Your task to perform on an android device: see creations saved in the google photos Image 0: 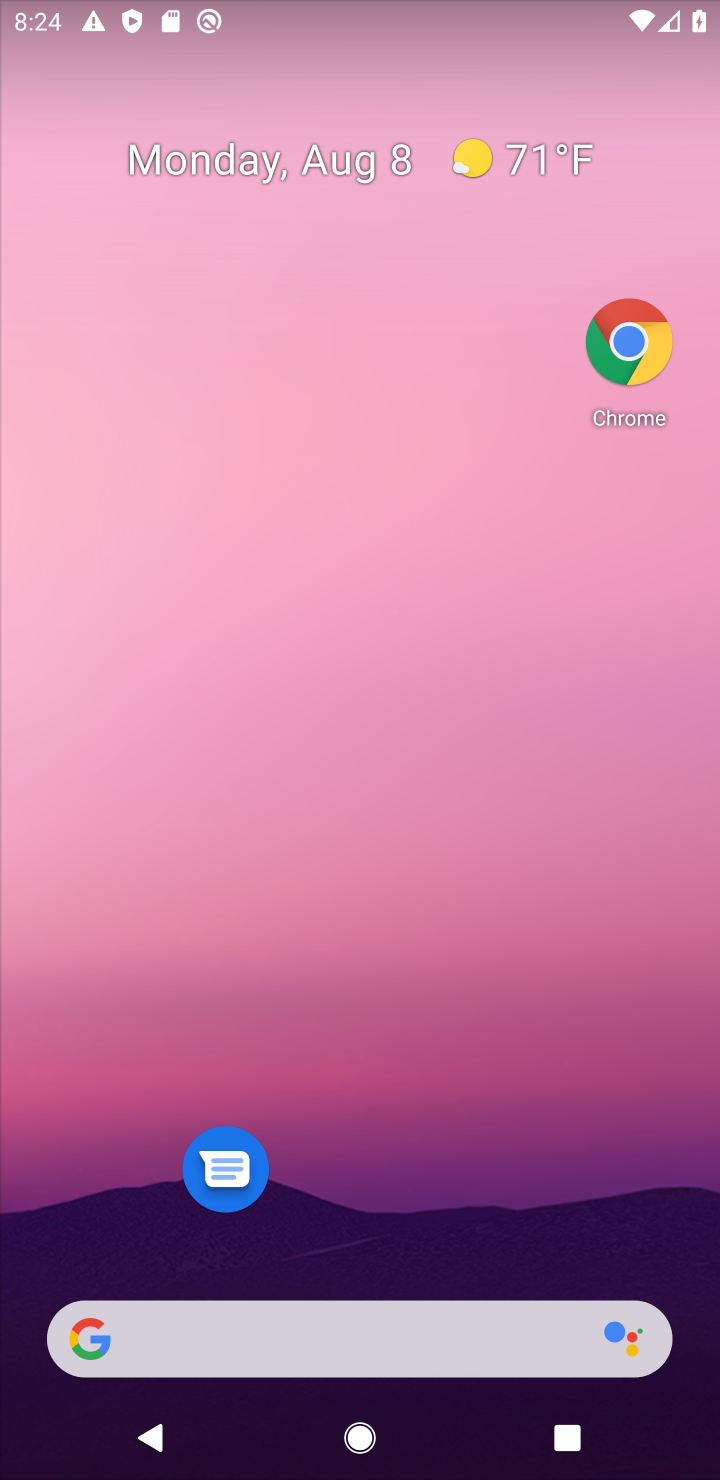
Step 0: drag from (370, 915) to (406, 31)
Your task to perform on an android device: see creations saved in the google photos Image 1: 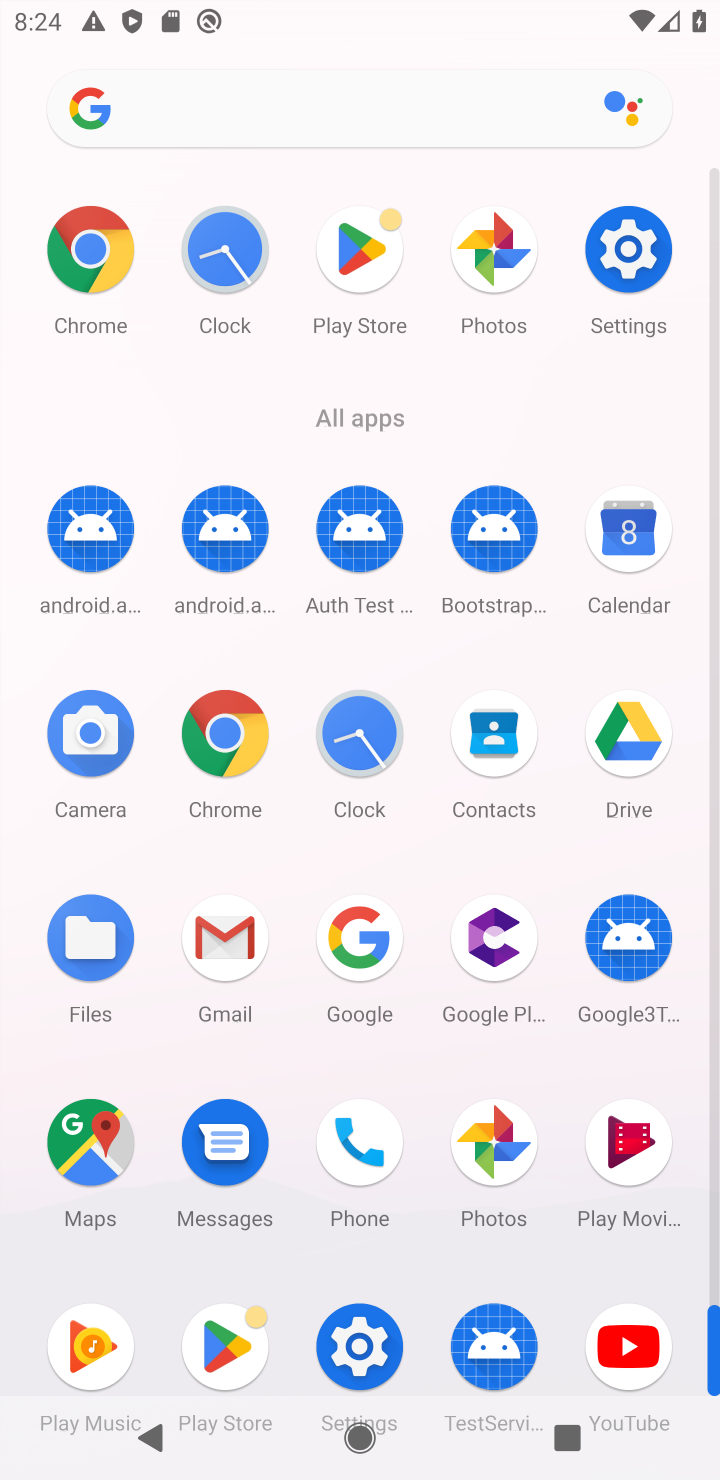
Step 1: click (501, 269)
Your task to perform on an android device: see creations saved in the google photos Image 2: 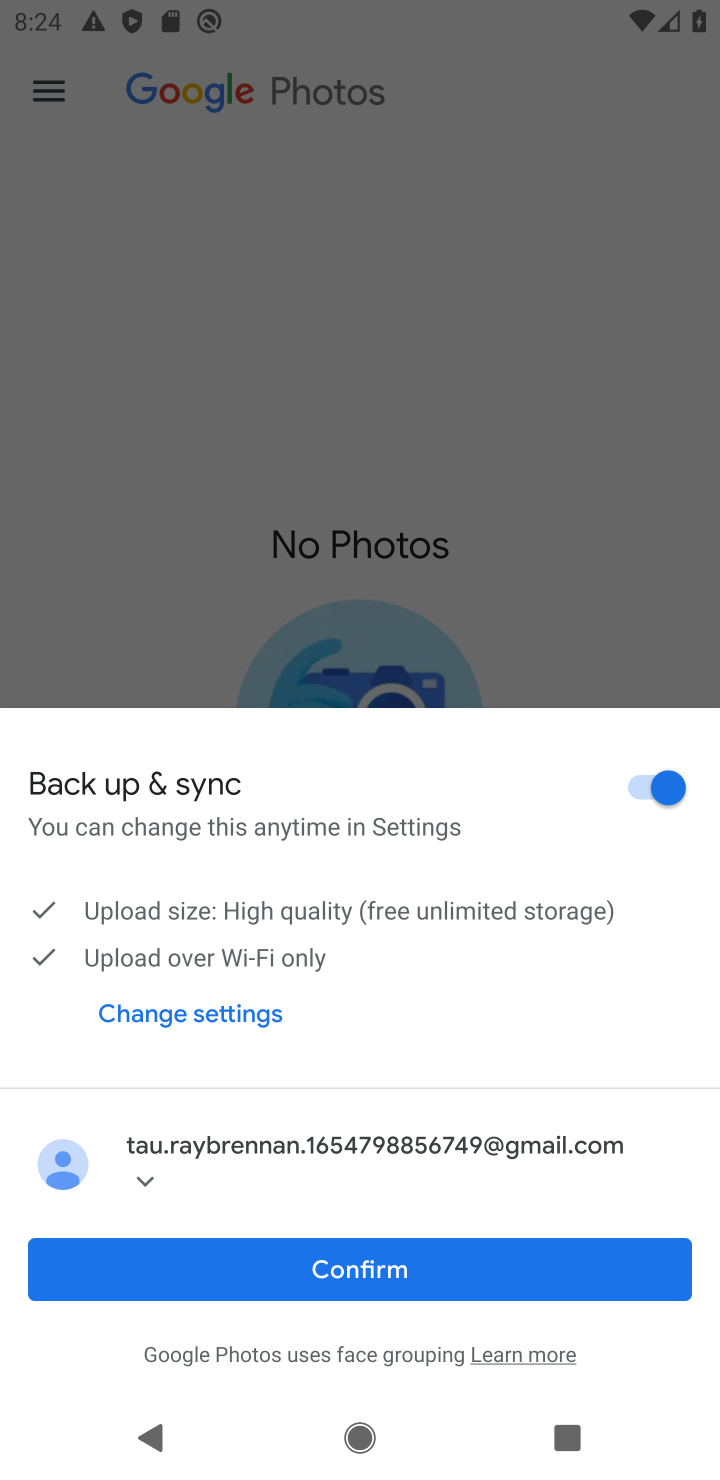
Step 2: click (359, 1244)
Your task to perform on an android device: see creations saved in the google photos Image 3: 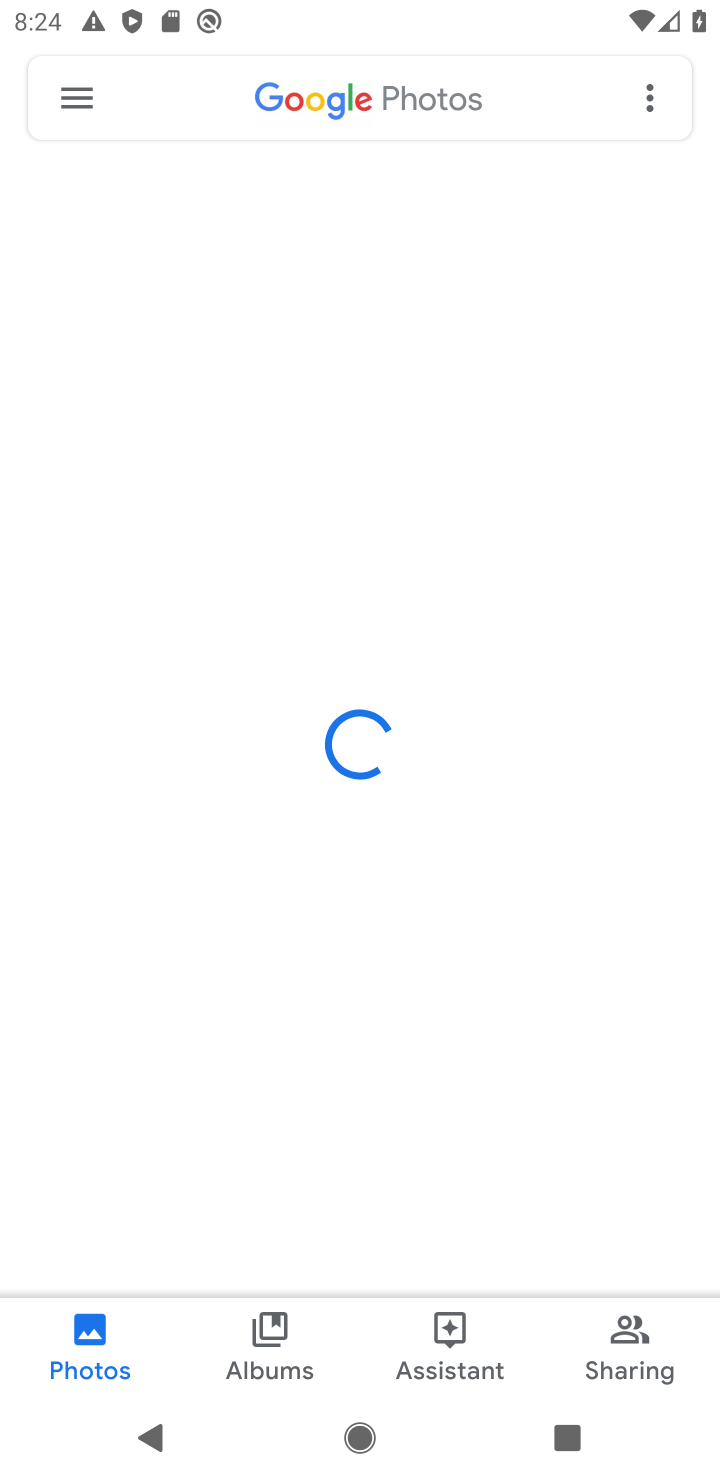
Step 3: click (91, 1324)
Your task to perform on an android device: see creations saved in the google photos Image 4: 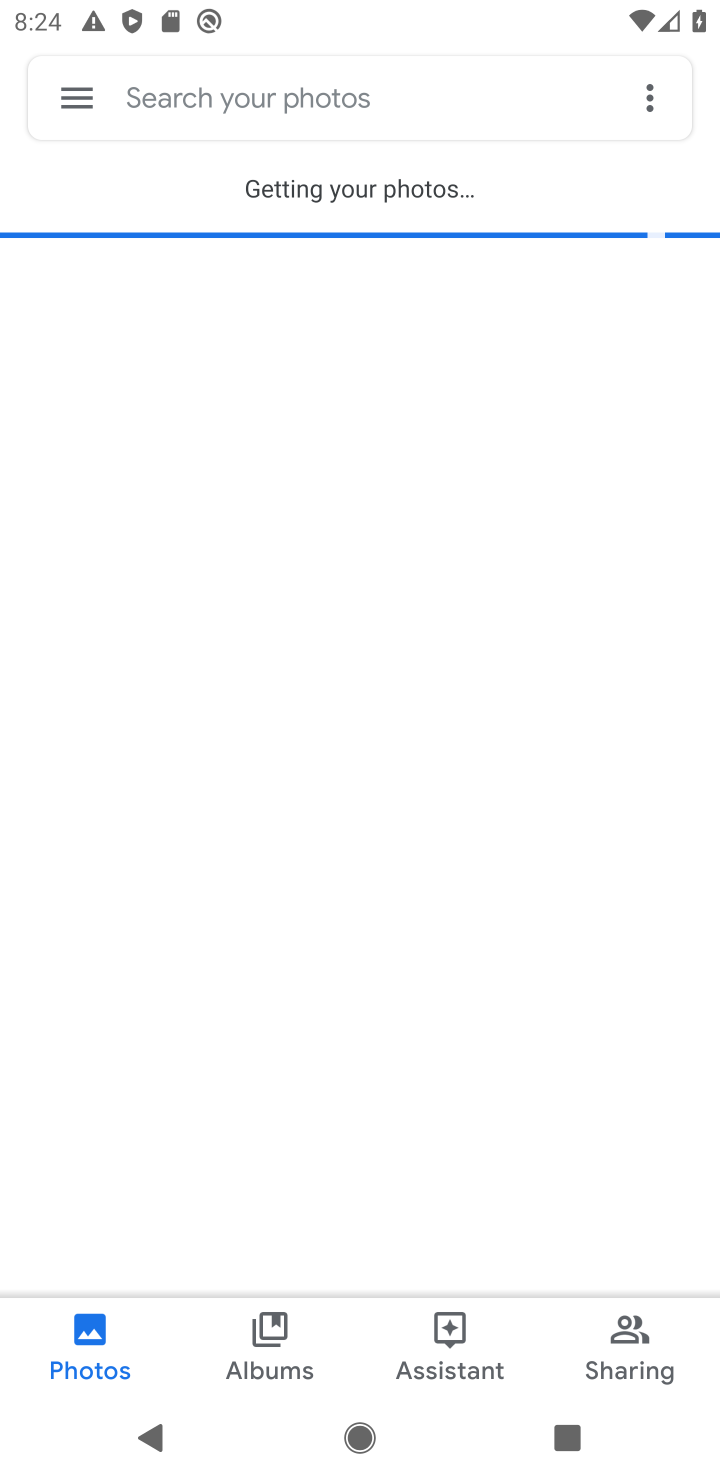
Step 4: click (68, 112)
Your task to perform on an android device: see creations saved in the google photos Image 5: 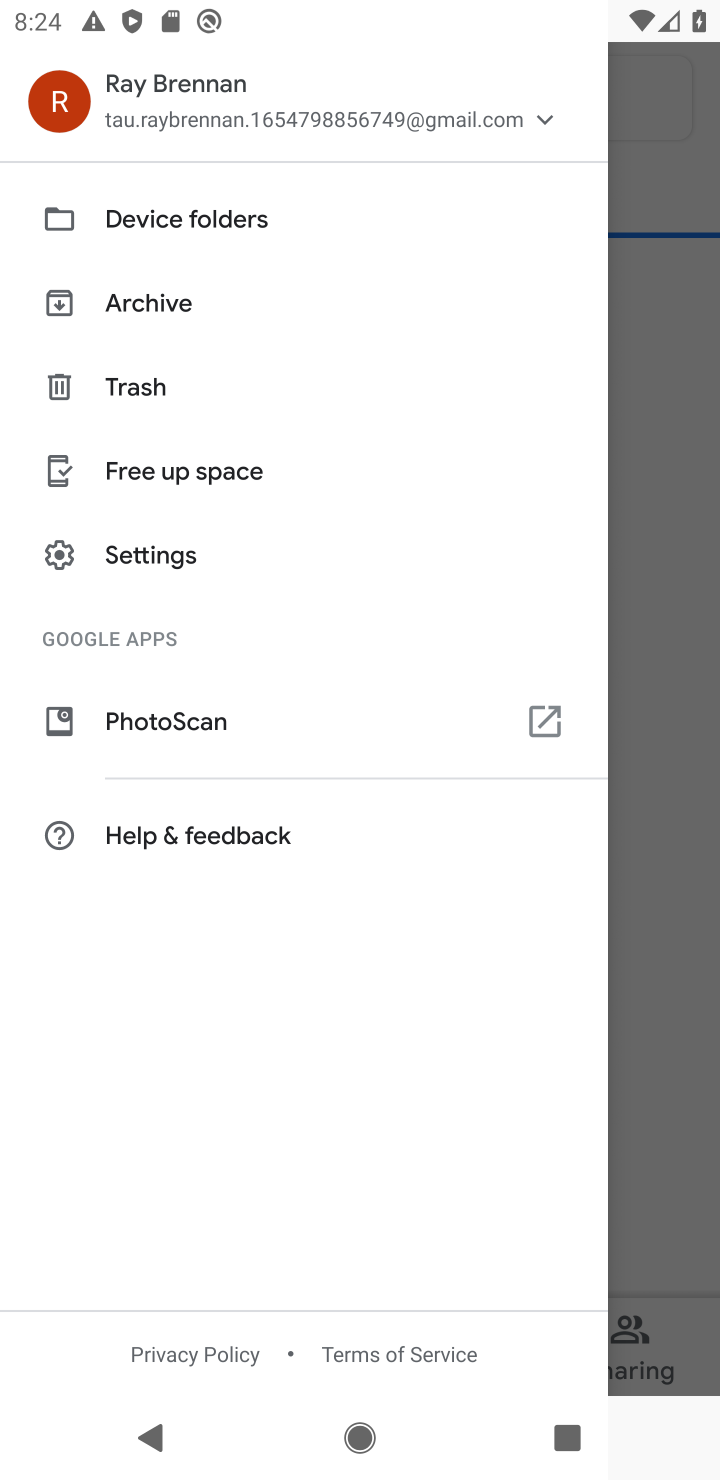
Step 5: click (166, 297)
Your task to perform on an android device: see creations saved in the google photos Image 6: 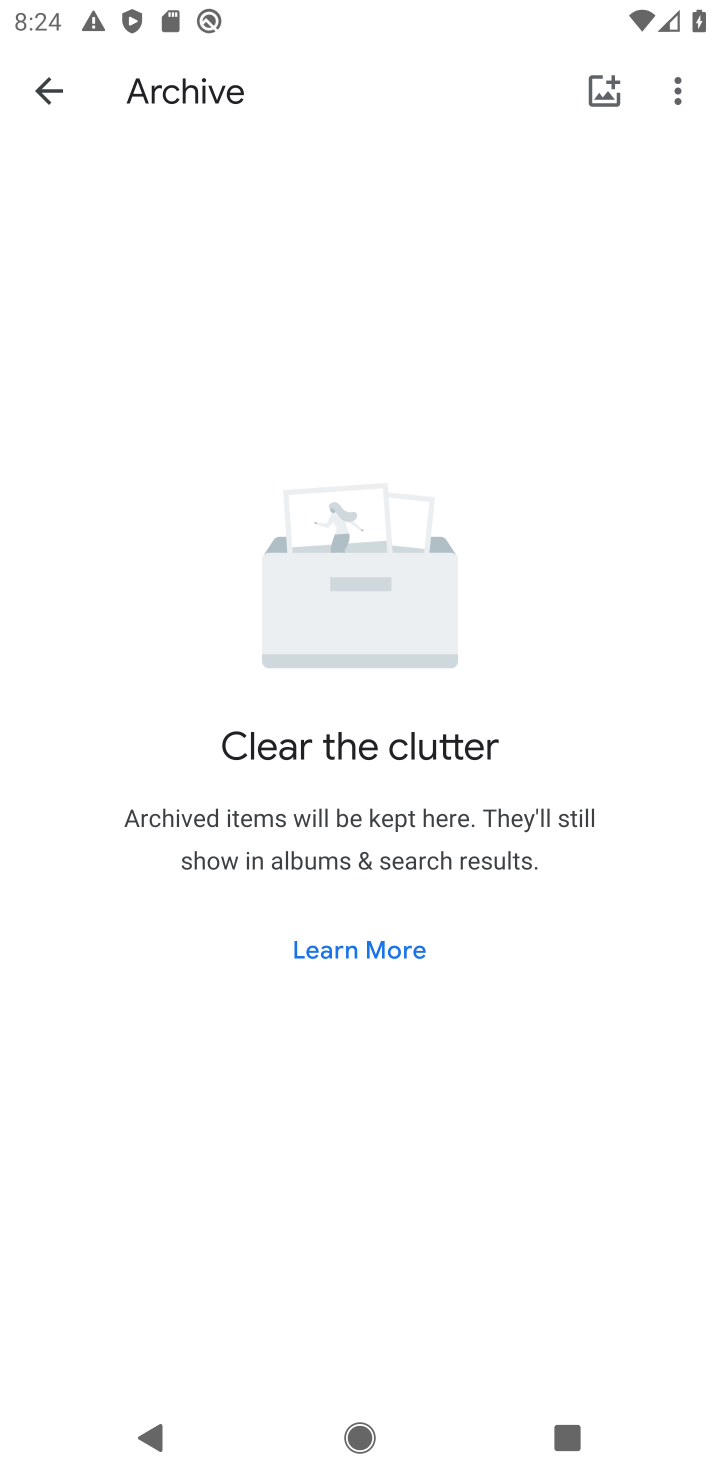
Step 6: task complete